Your task to perform on an android device: check battery use Image 0: 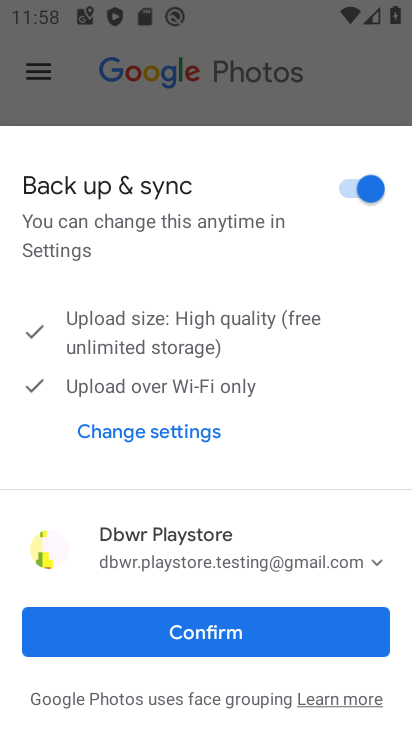
Step 0: press home button
Your task to perform on an android device: check battery use Image 1: 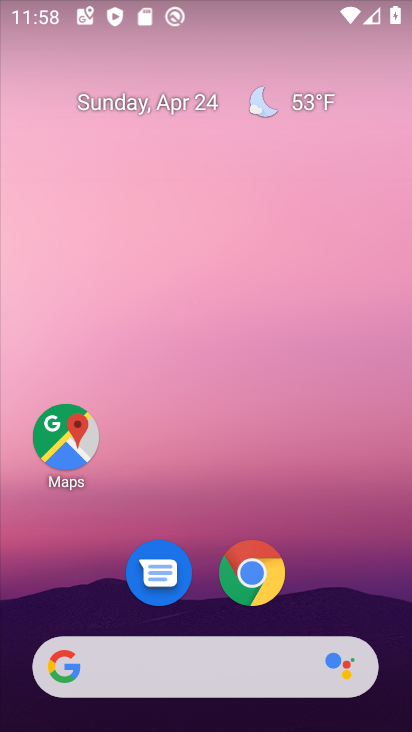
Step 1: drag from (365, 499) to (304, 118)
Your task to perform on an android device: check battery use Image 2: 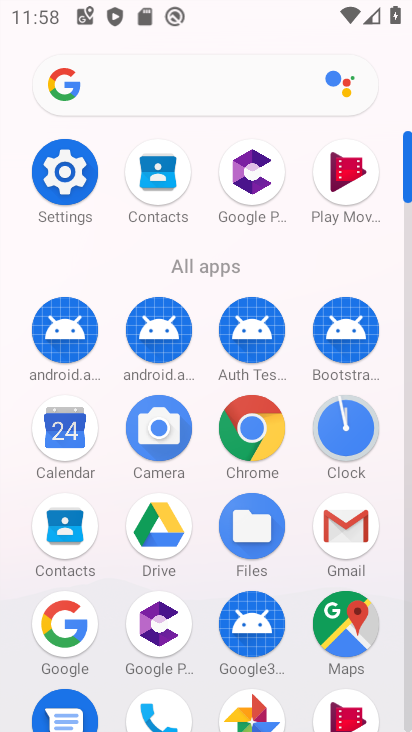
Step 2: click (74, 190)
Your task to perform on an android device: check battery use Image 3: 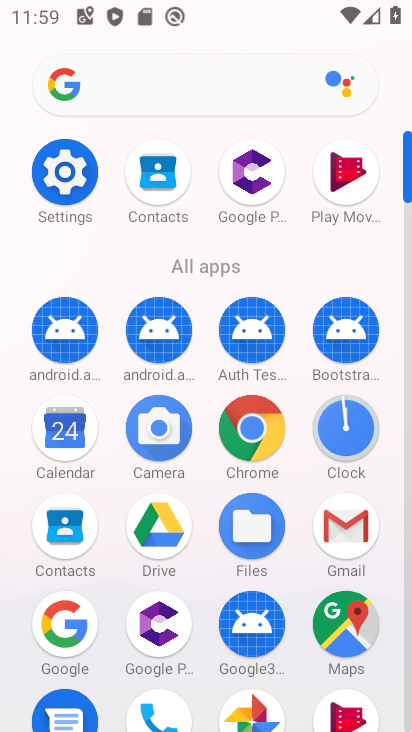
Step 3: click (57, 159)
Your task to perform on an android device: check battery use Image 4: 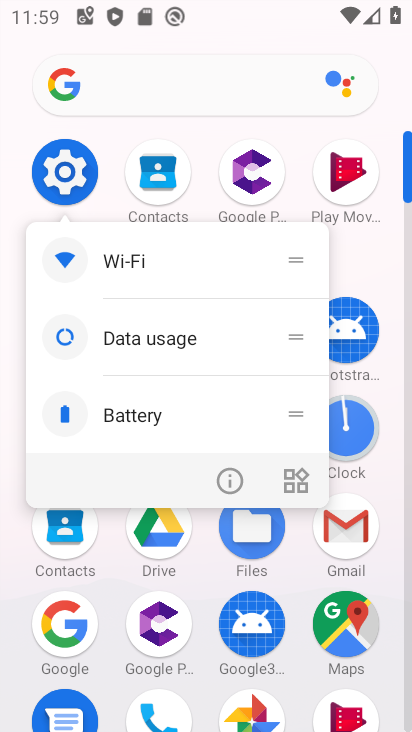
Step 4: click (57, 145)
Your task to perform on an android device: check battery use Image 5: 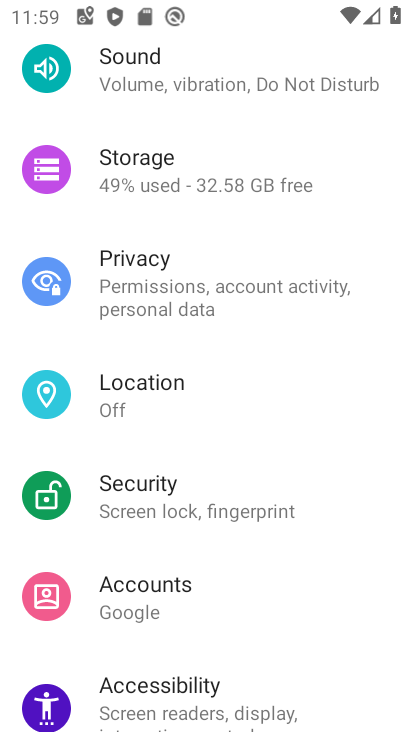
Step 5: drag from (211, 423) to (274, 81)
Your task to perform on an android device: check battery use Image 6: 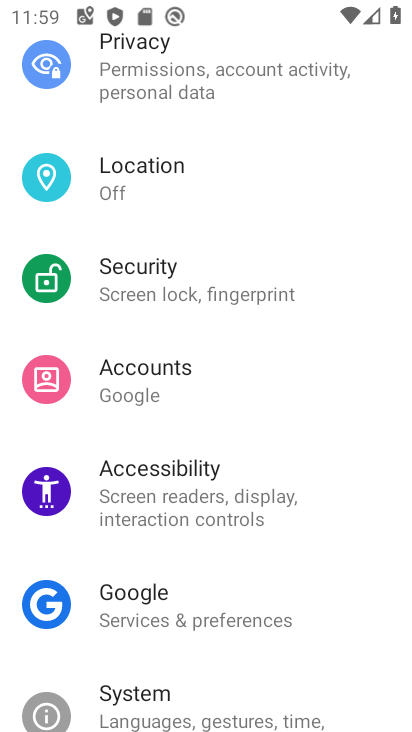
Step 6: drag from (230, 639) to (279, 97)
Your task to perform on an android device: check battery use Image 7: 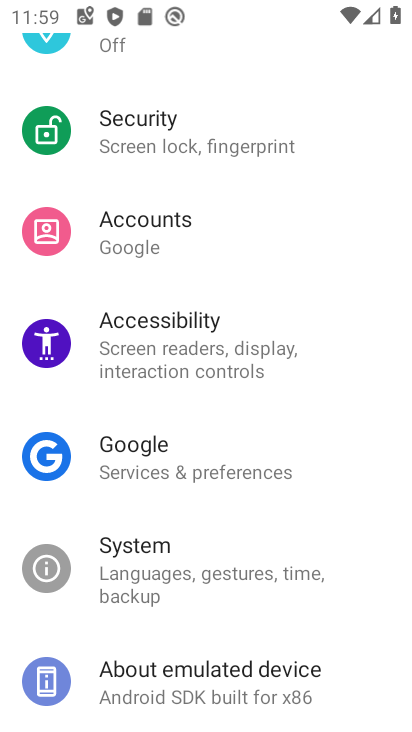
Step 7: drag from (232, 546) to (251, 194)
Your task to perform on an android device: check battery use Image 8: 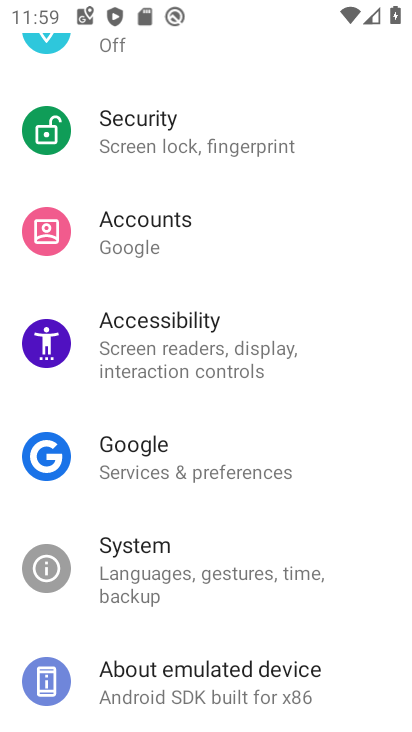
Step 8: drag from (247, 212) to (259, 620)
Your task to perform on an android device: check battery use Image 9: 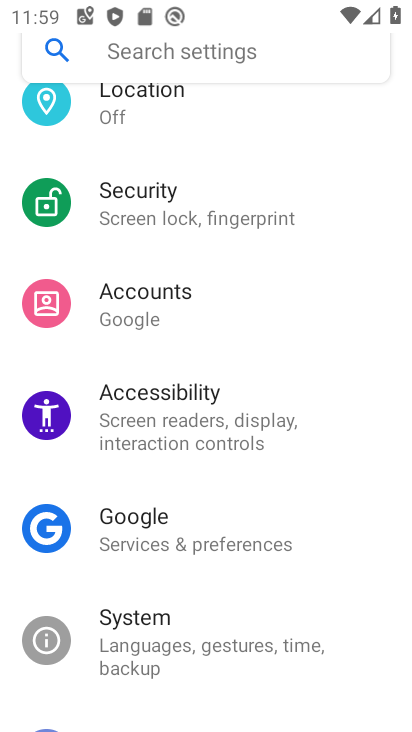
Step 9: drag from (259, 206) to (281, 563)
Your task to perform on an android device: check battery use Image 10: 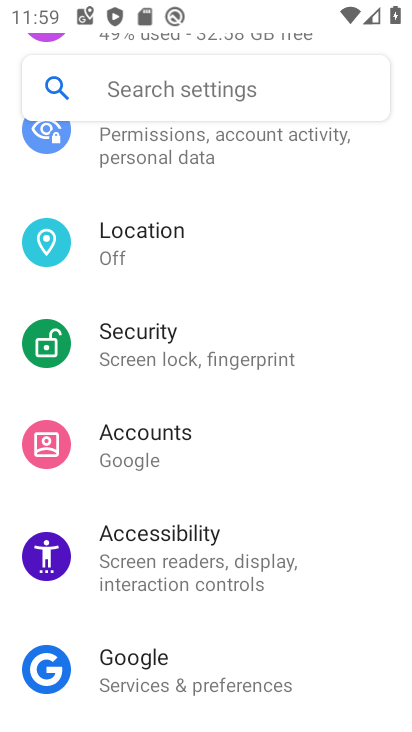
Step 10: drag from (268, 271) to (285, 587)
Your task to perform on an android device: check battery use Image 11: 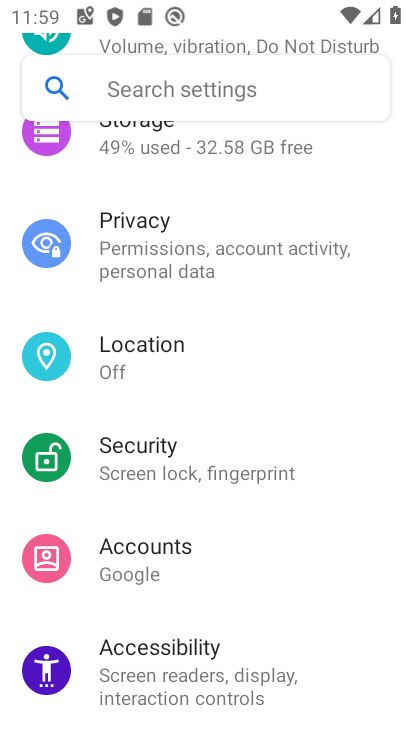
Step 11: drag from (331, 319) to (314, 539)
Your task to perform on an android device: check battery use Image 12: 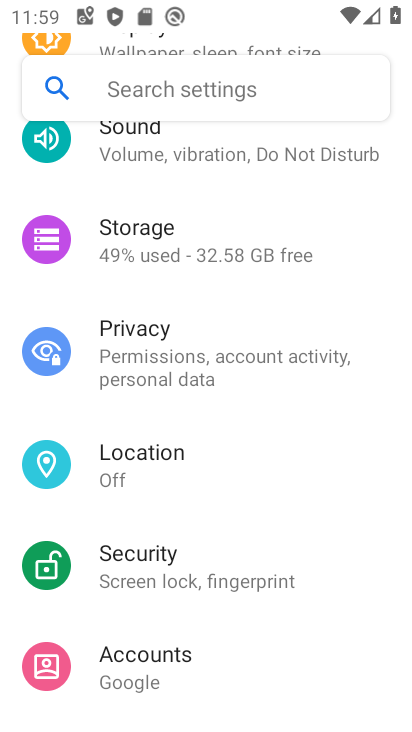
Step 12: drag from (310, 270) to (267, 555)
Your task to perform on an android device: check battery use Image 13: 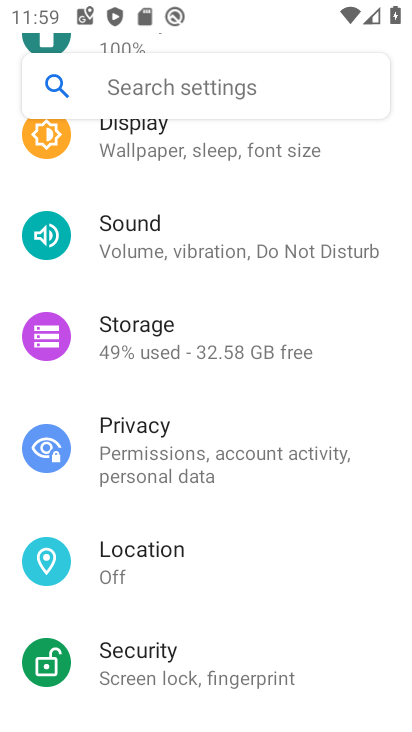
Step 13: drag from (305, 252) to (279, 551)
Your task to perform on an android device: check battery use Image 14: 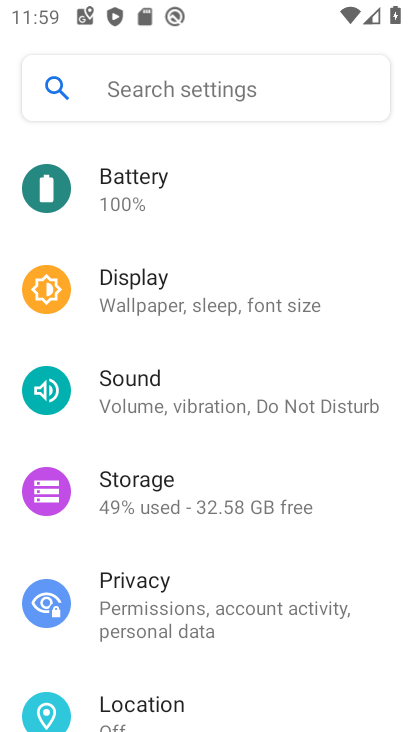
Step 14: click (110, 173)
Your task to perform on an android device: check battery use Image 15: 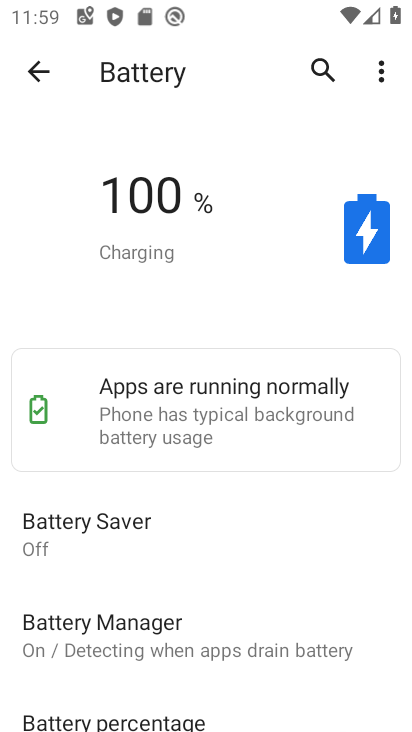
Step 15: task complete